Your task to perform on an android device: Show me recent news Image 0: 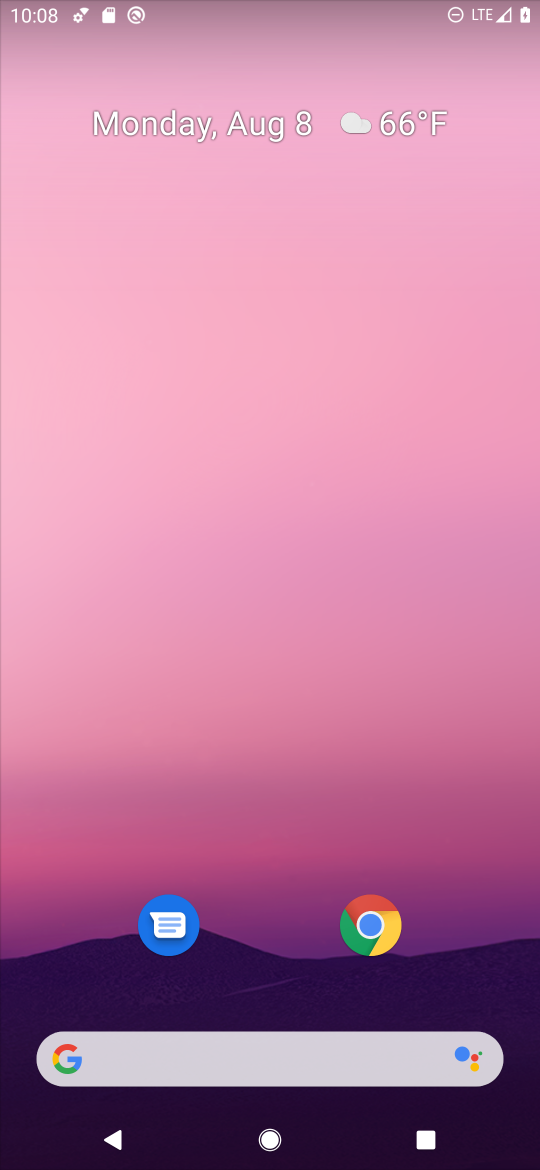
Step 0: drag from (280, 964) to (252, 148)
Your task to perform on an android device: Show me recent news Image 1: 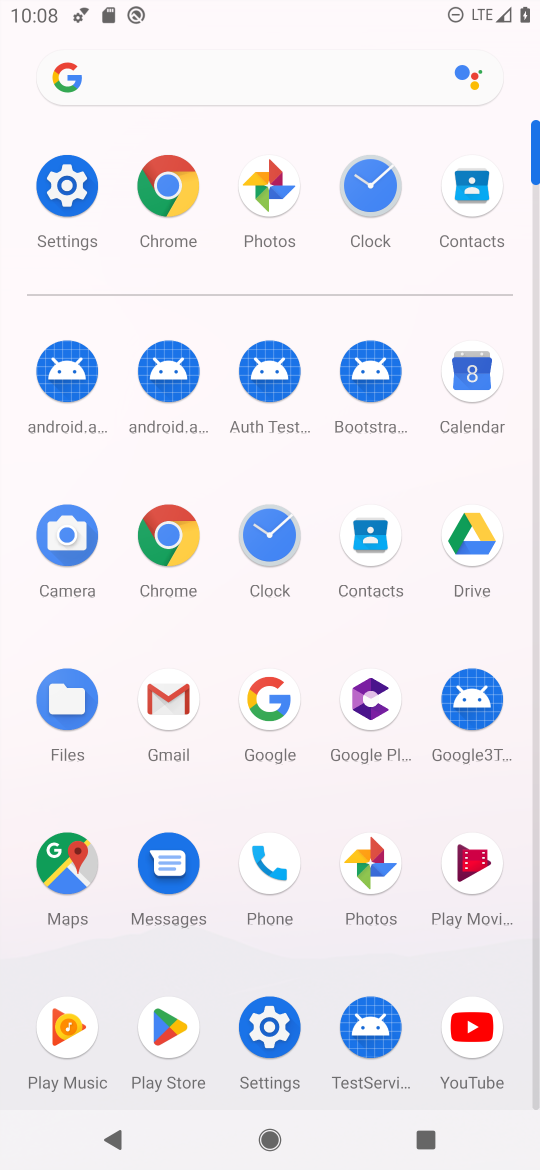
Step 1: click (164, 531)
Your task to perform on an android device: Show me recent news Image 2: 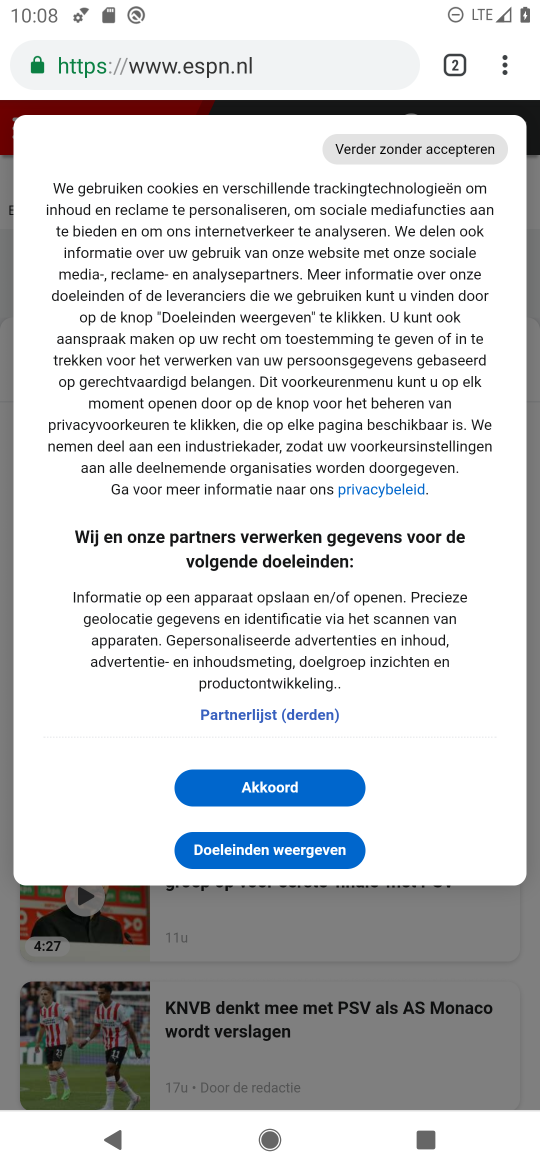
Step 2: click (247, 66)
Your task to perform on an android device: Show me recent news Image 3: 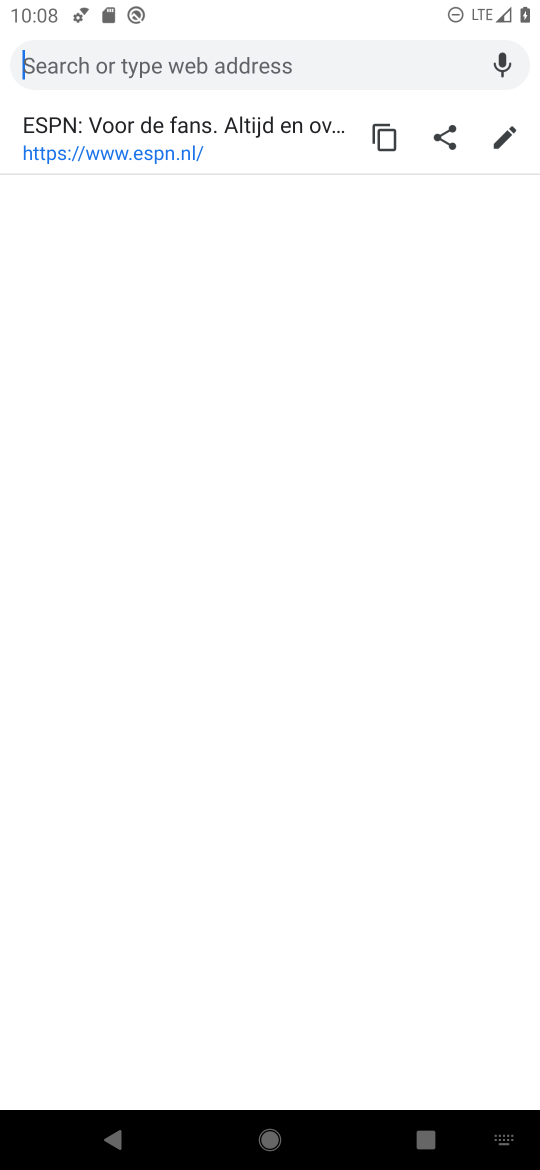
Step 3: type "news"
Your task to perform on an android device: Show me recent news Image 4: 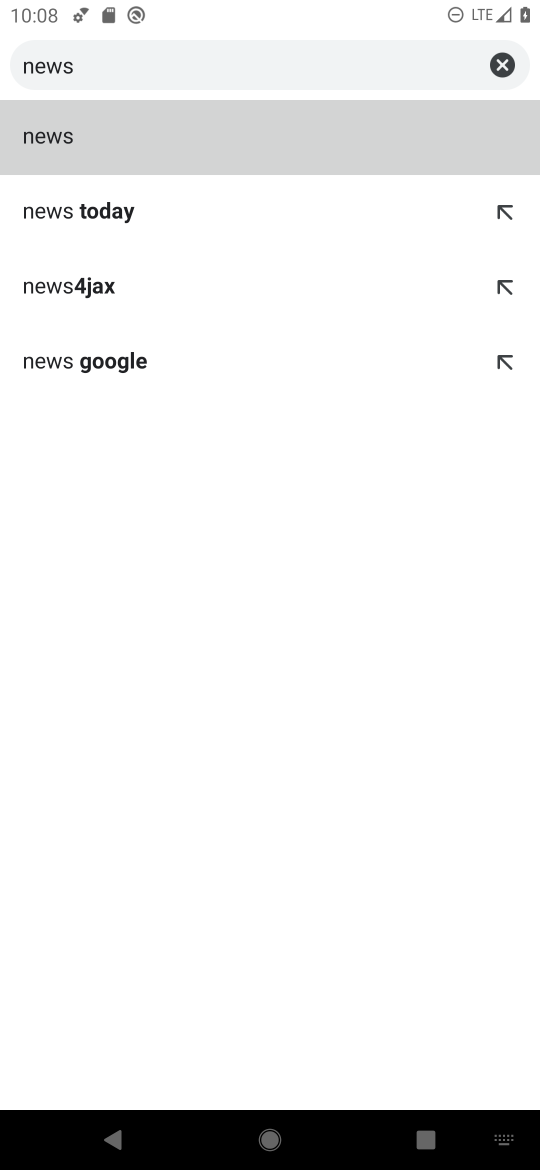
Step 4: click (40, 138)
Your task to perform on an android device: Show me recent news Image 5: 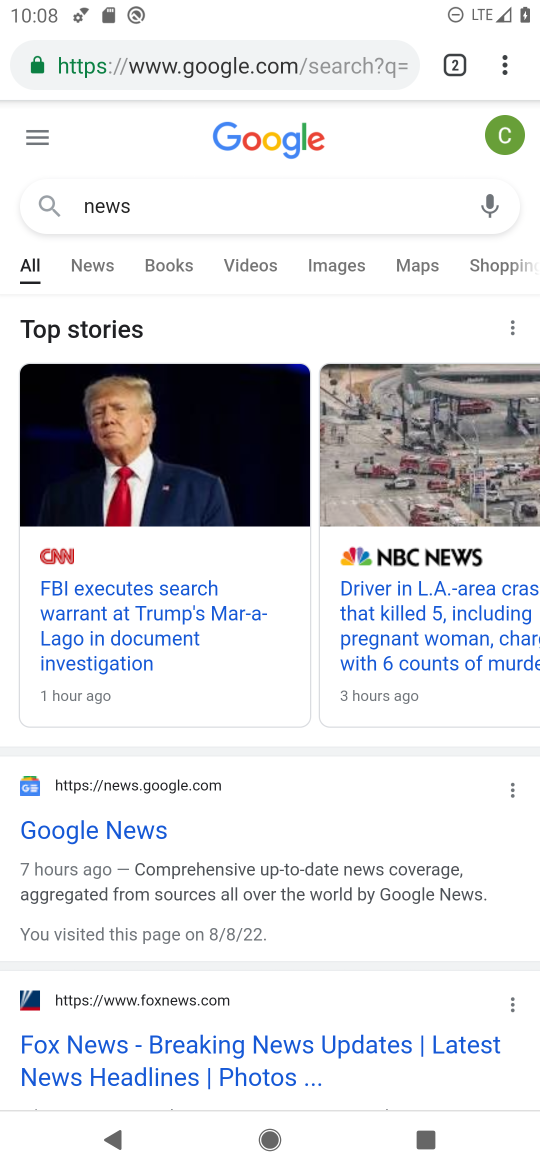
Step 5: click (46, 838)
Your task to perform on an android device: Show me recent news Image 6: 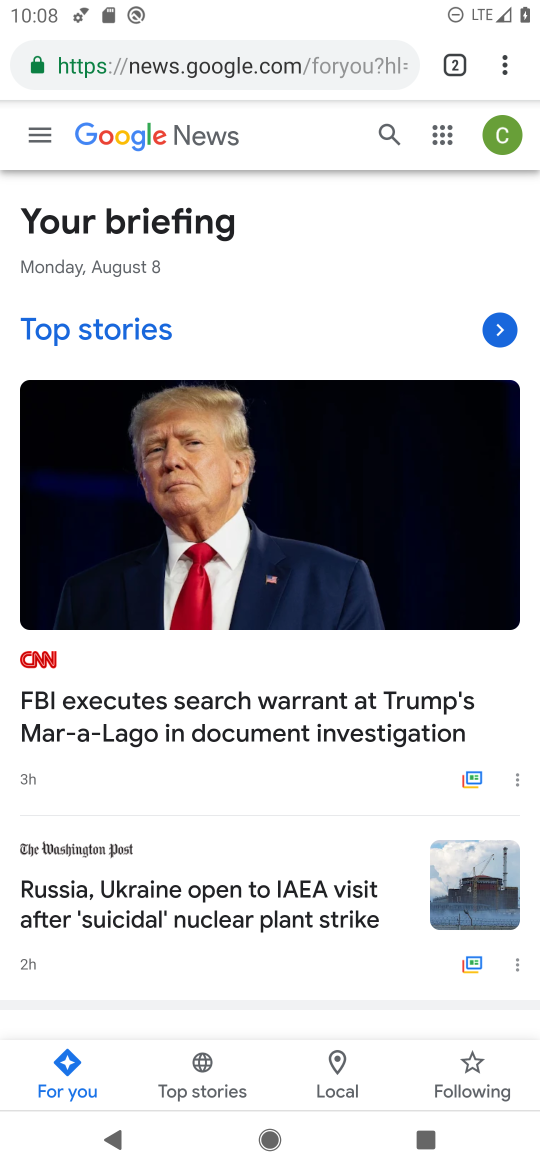
Step 6: task complete